Your task to perform on an android device: Open Android settings Image 0: 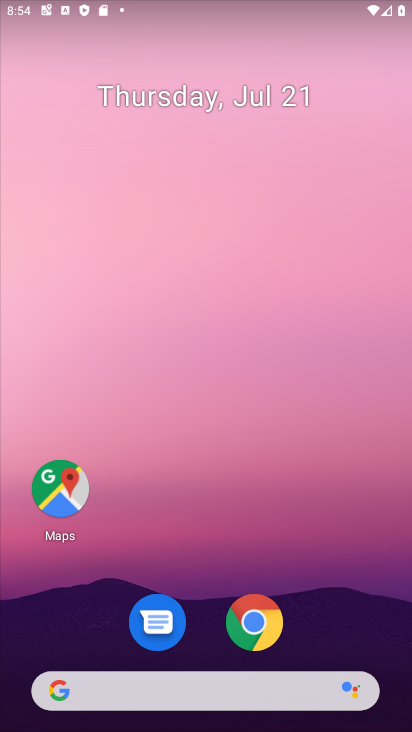
Step 0: drag from (254, 708) to (302, 464)
Your task to perform on an android device: Open Android settings Image 1: 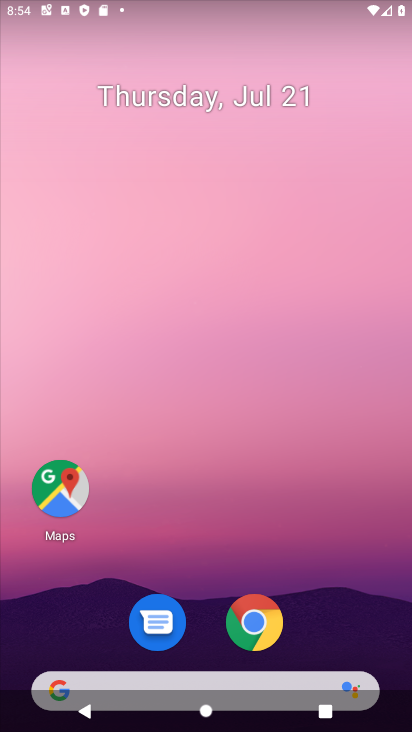
Step 1: drag from (186, 374) to (212, 0)
Your task to perform on an android device: Open Android settings Image 2: 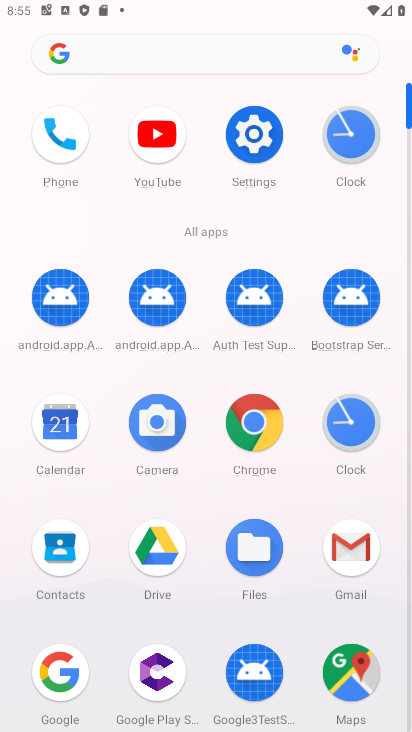
Step 2: click (274, 136)
Your task to perform on an android device: Open Android settings Image 3: 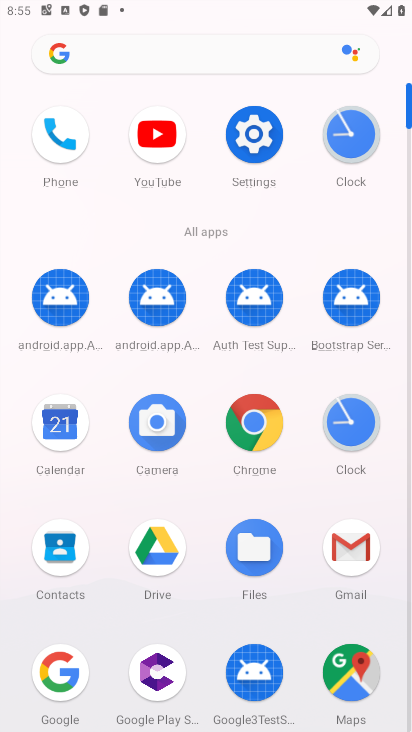
Step 3: click (274, 136)
Your task to perform on an android device: Open Android settings Image 4: 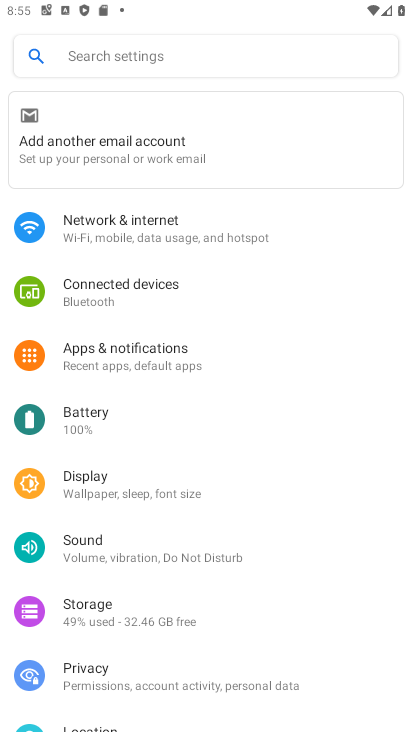
Step 4: drag from (316, 664) to (9, 16)
Your task to perform on an android device: Open Android settings Image 5: 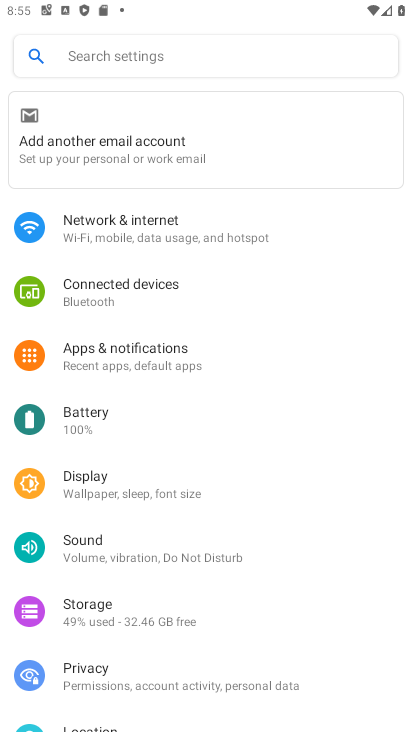
Step 5: drag from (277, 600) to (328, 81)
Your task to perform on an android device: Open Android settings Image 6: 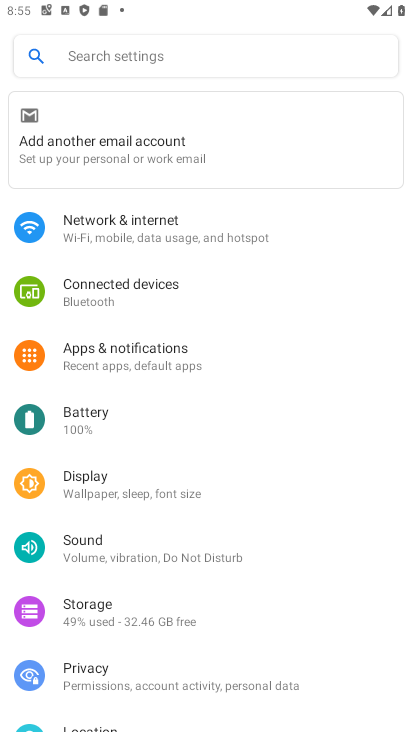
Step 6: drag from (278, 565) to (276, 150)
Your task to perform on an android device: Open Android settings Image 7: 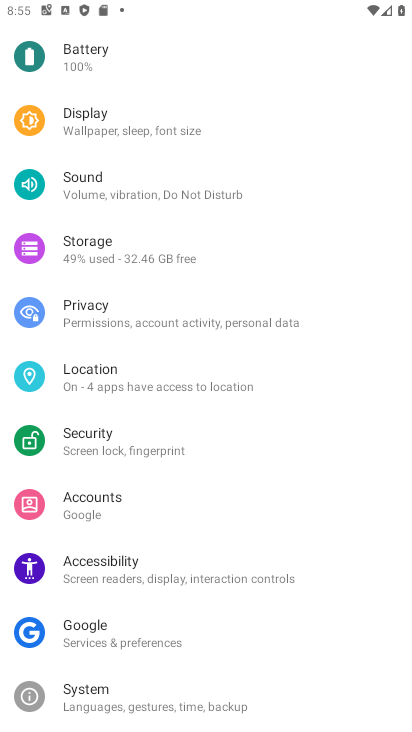
Step 7: drag from (271, 636) to (306, 134)
Your task to perform on an android device: Open Android settings Image 8: 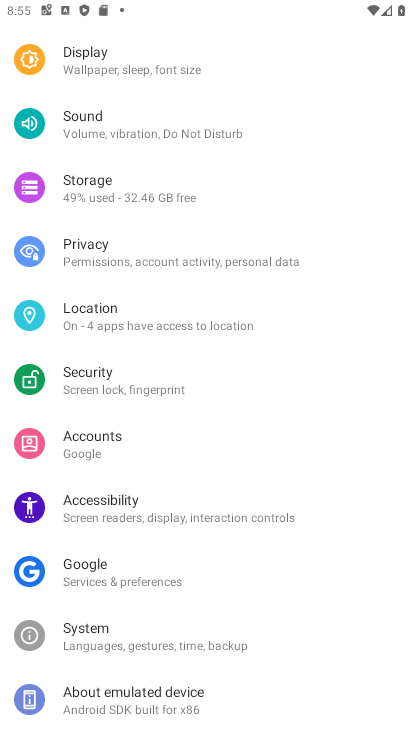
Step 8: click (190, 707)
Your task to perform on an android device: Open Android settings Image 9: 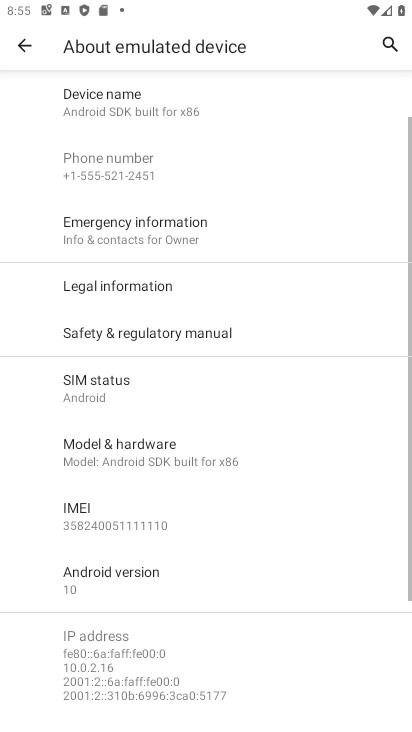
Step 9: task complete